Your task to perform on an android device: Is it going to rain today? Image 0: 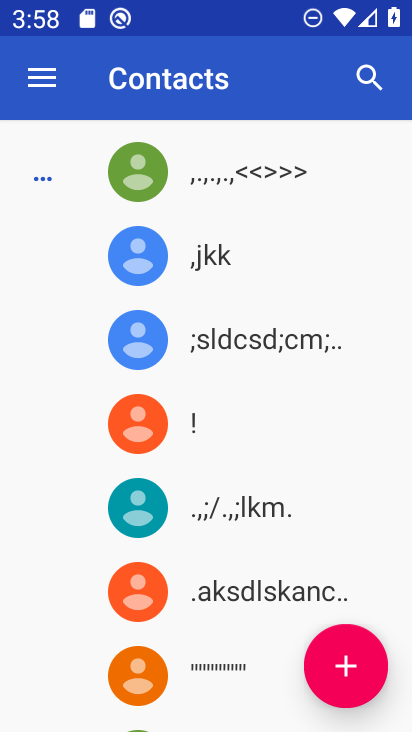
Step 0: press home button
Your task to perform on an android device: Is it going to rain today? Image 1: 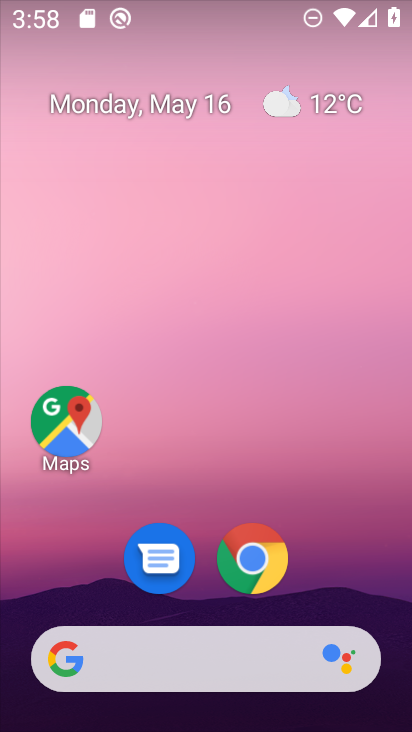
Step 1: click (281, 110)
Your task to perform on an android device: Is it going to rain today? Image 2: 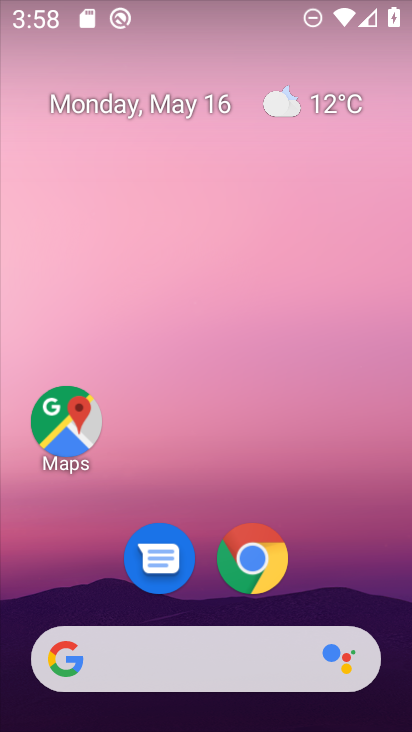
Step 2: click (292, 114)
Your task to perform on an android device: Is it going to rain today? Image 3: 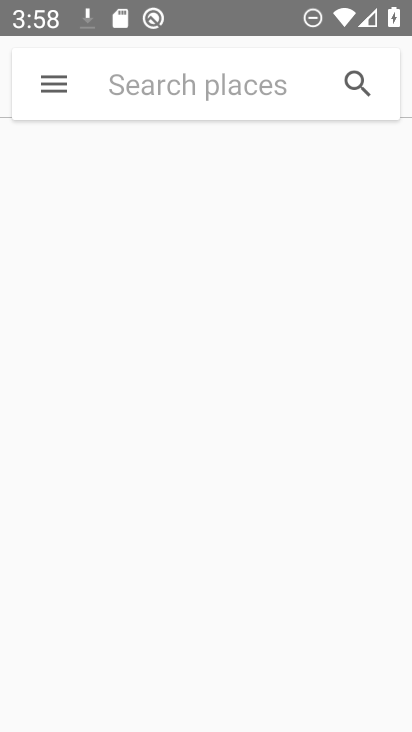
Step 3: click (287, 117)
Your task to perform on an android device: Is it going to rain today? Image 4: 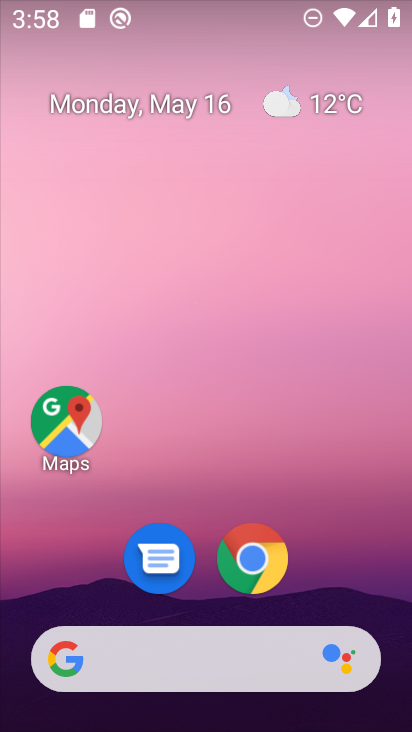
Step 4: click (325, 122)
Your task to perform on an android device: Is it going to rain today? Image 5: 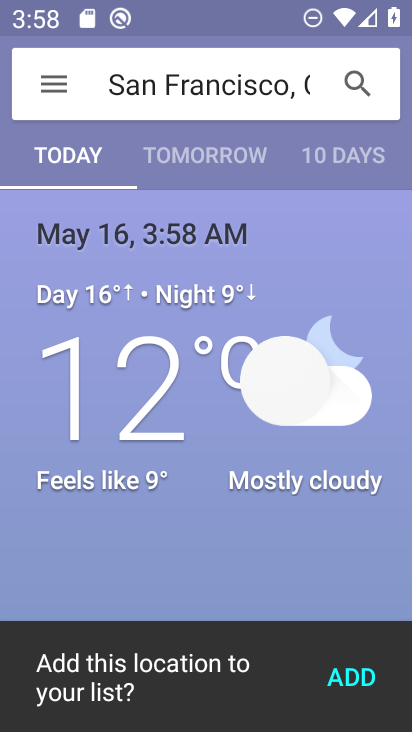
Step 5: task complete